Your task to perform on an android device: change the clock style Image 0: 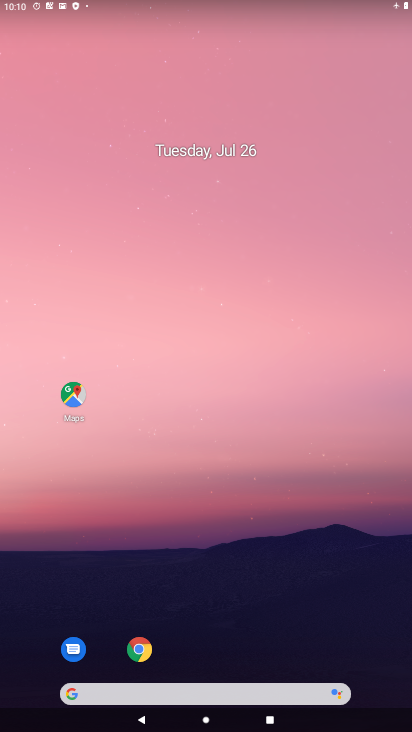
Step 0: drag from (201, 651) to (260, 158)
Your task to perform on an android device: change the clock style Image 1: 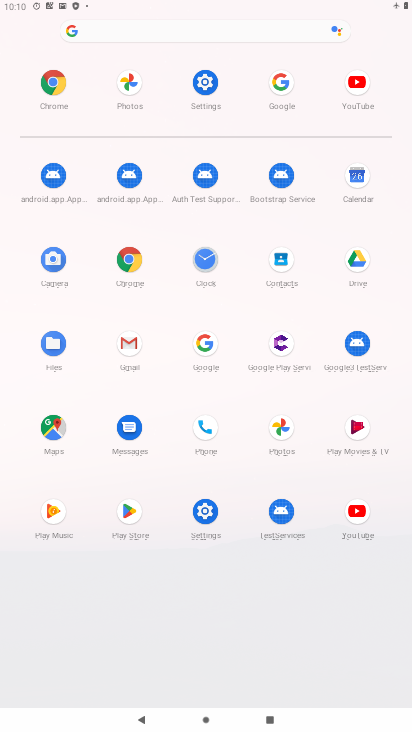
Step 1: click (196, 248)
Your task to perform on an android device: change the clock style Image 2: 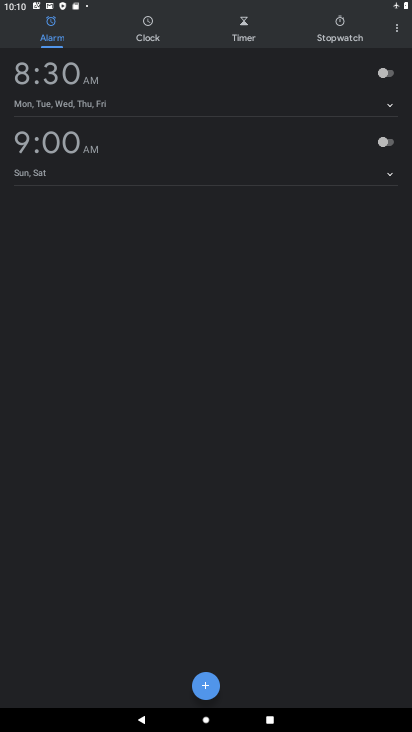
Step 2: drag from (396, 33) to (355, 57)
Your task to perform on an android device: change the clock style Image 3: 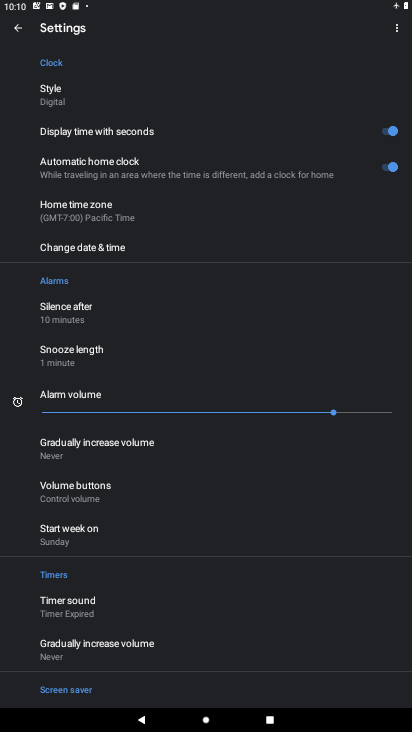
Step 3: click (59, 97)
Your task to perform on an android device: change the clock style Image 4: 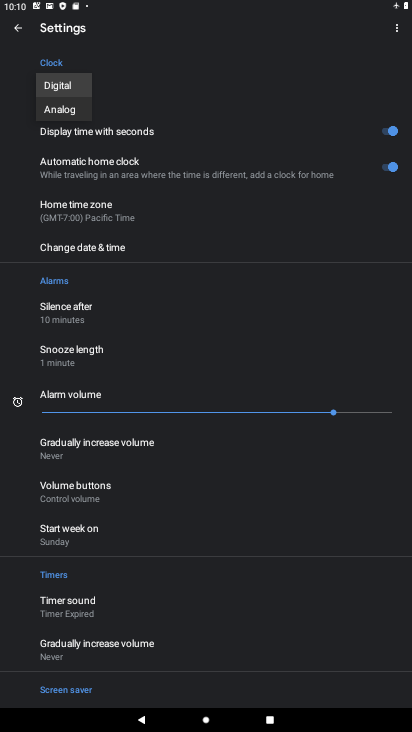
Step 4: click (79, 113)
Your task to perform on an android device: change the clock style Image 5: 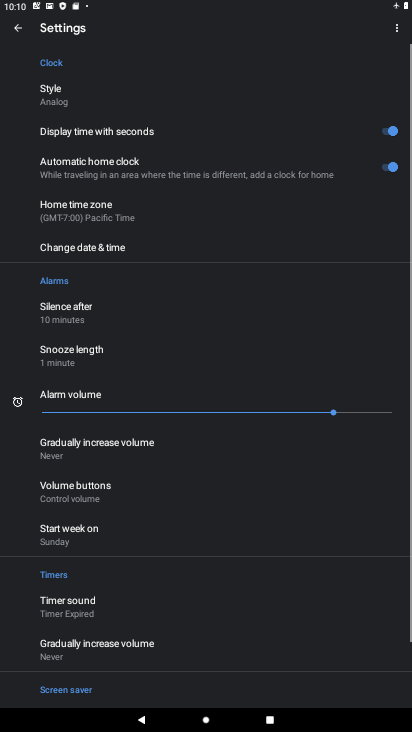
Step 5: task complete